Your task to perform on an android device: Search for the best custom wallets on Etsy. Image 0: 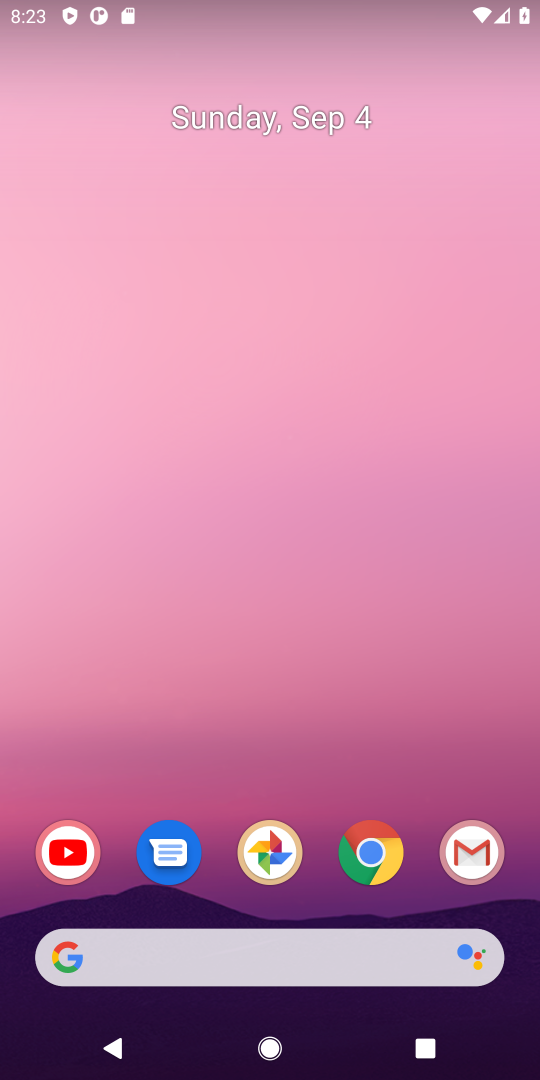
Step 0: drag from (413, 755) to (183, 36)
Your task to perform on an android device: Search for the best custom wallets on Etsy. Image 1: 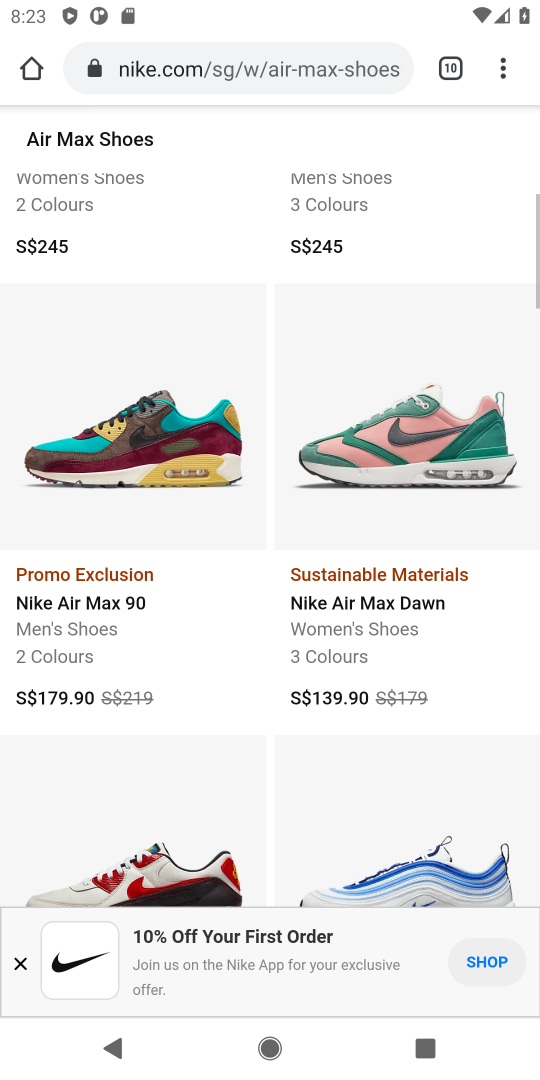
Step 1: press back button
Your task to perform on an android device: Search for the best custom wallets on Etsy. Image 2: 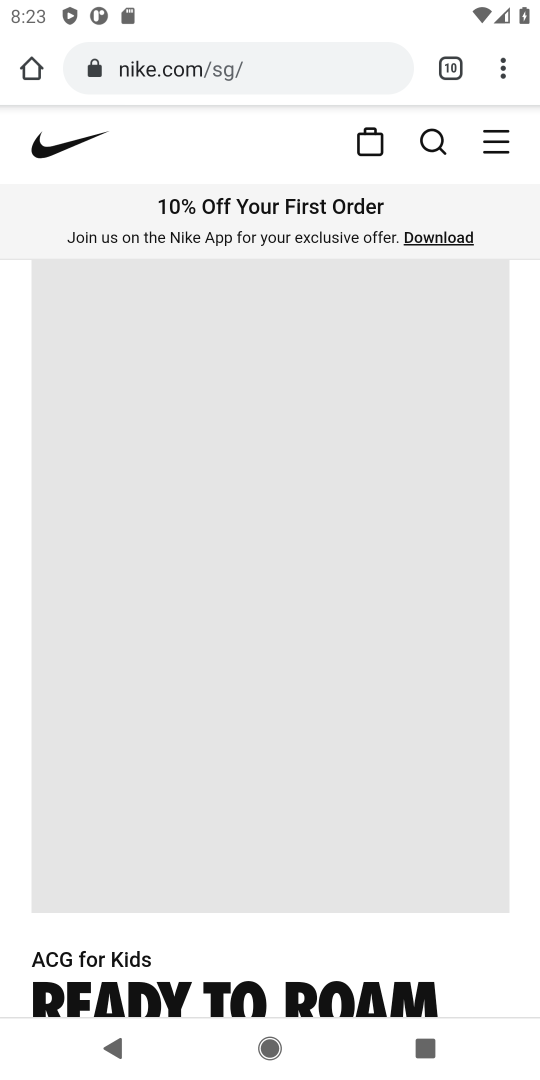
Step 2: press back button
Your task to perform on an android device: Search for the best custom wallets on Etsy. Image 3: 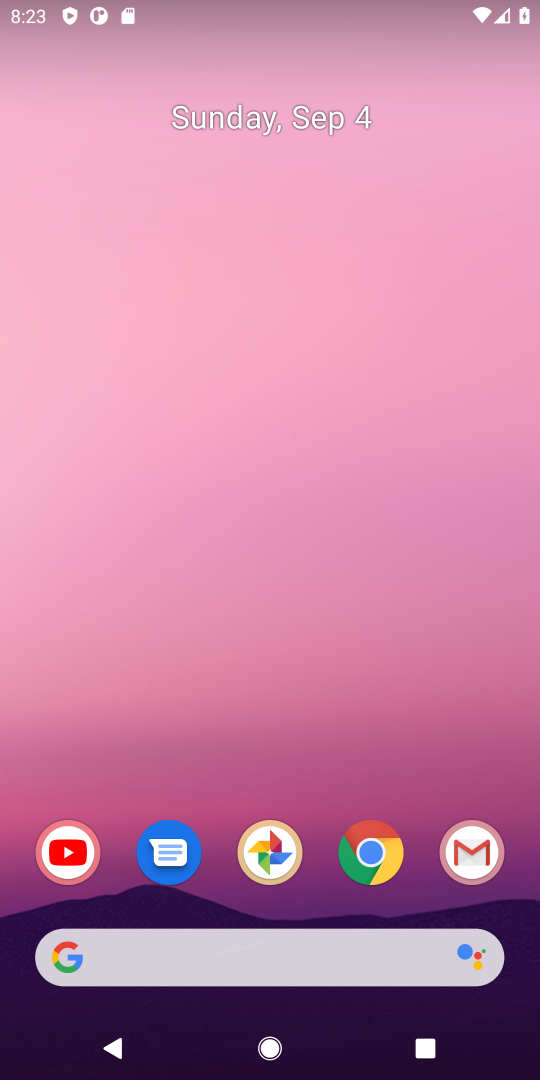
Step 3: drag from (374, 419) to (264, 112)
Your task to perform on an android device: Search for the best custom wallets on Etsy. Image 4: 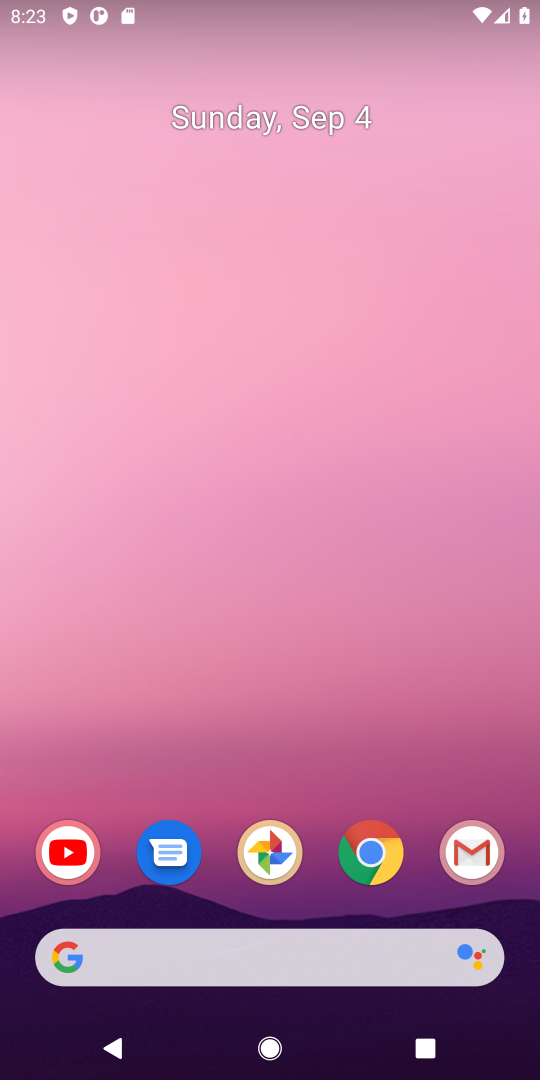
Step 4: drag from (283, 100) to (257, 21)
Your task to perform on an android device: Search for the best custom wallets on Etsy. Image 5: 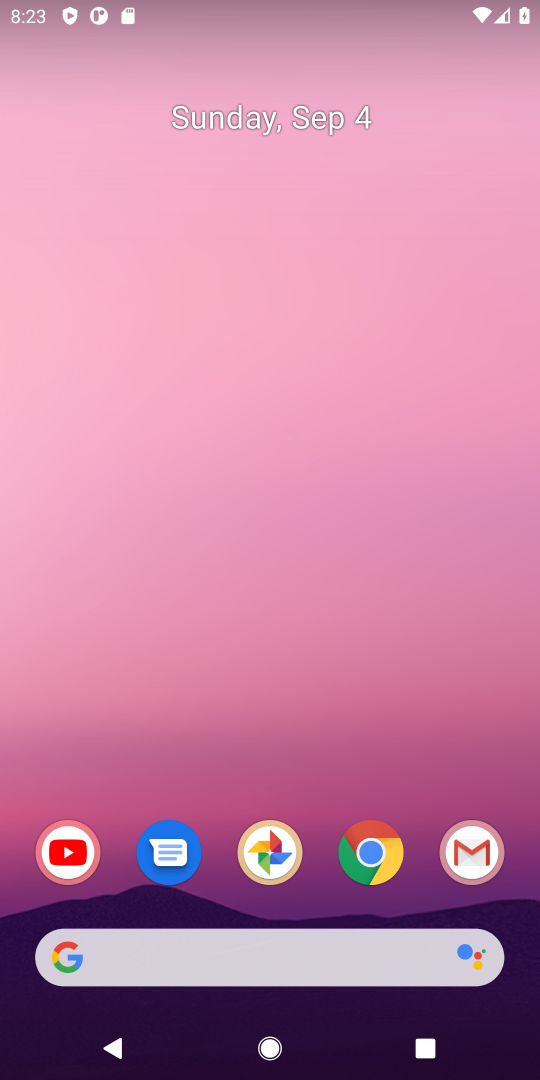
Step 5: drag from (424, 785) to (240, 183)
Your task to perform on an android device: Search for the best custom wallets on Etsy. Image 6: 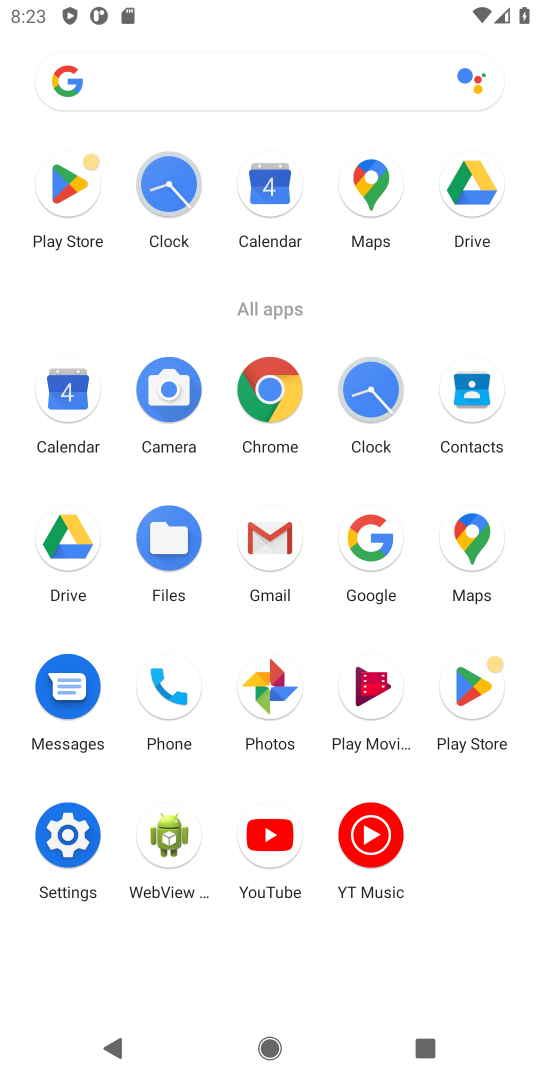
Step 6: click (372, 542)
Your task to perform on an android device: Search for the best custom wallets on Etsy. Image 7: 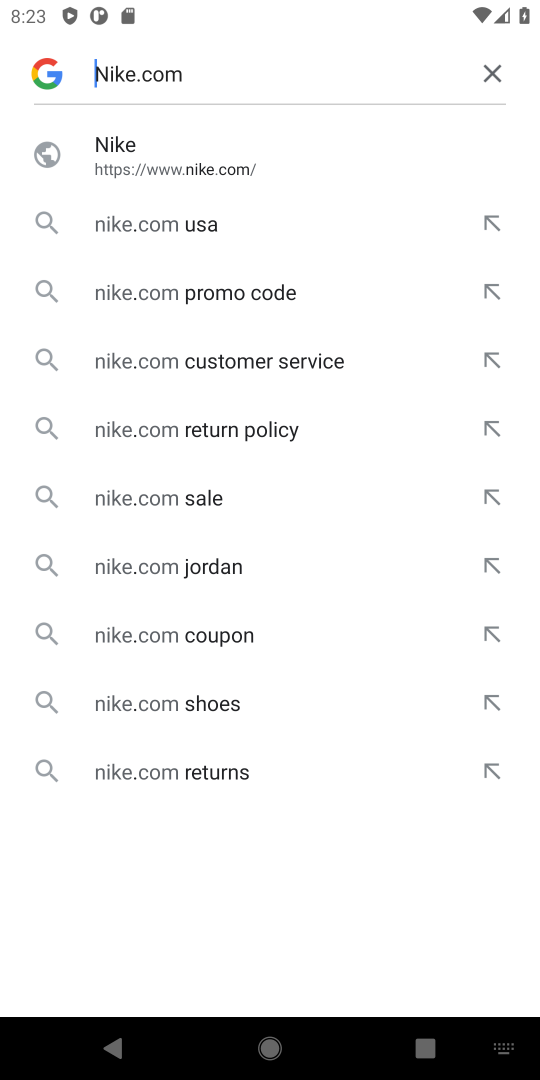
Step 7: click (494, 67)
Your task to perform on an android device: Search for the best custom wallets on Etsy. Image 8: 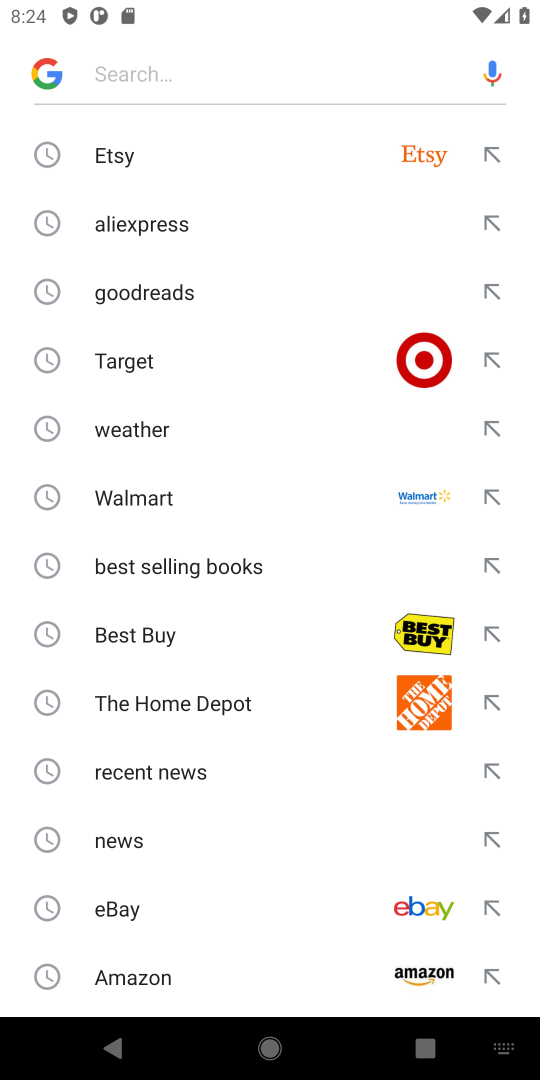
Step 8: click (204, 170)
Your task to perform on an android device: Search for the best custom wallets on Etsy. Image 9: 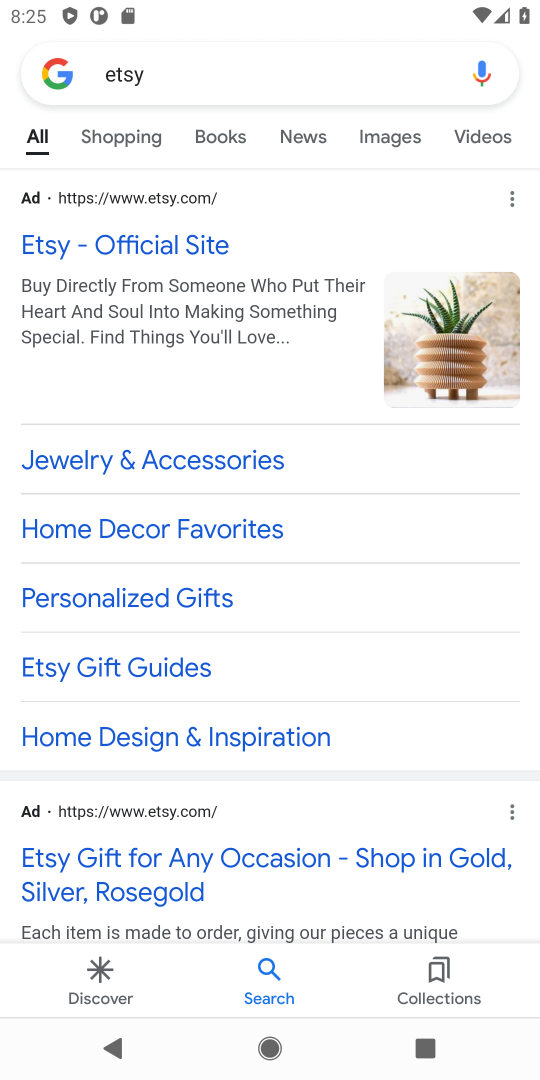
Step 9: click (179, 246)
Your task to perform on an android device: Search for the best custom wallets on Etsy. Image 10: 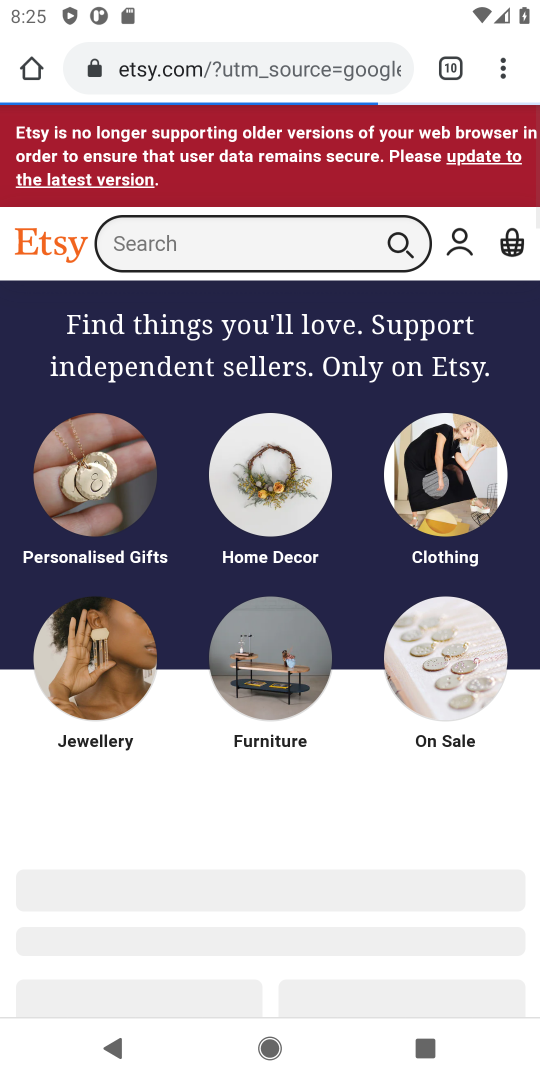
Step 10: click (200, 246)
Your task to perform on an android device: Search for the best custom wallets on Etsy. Image 11: 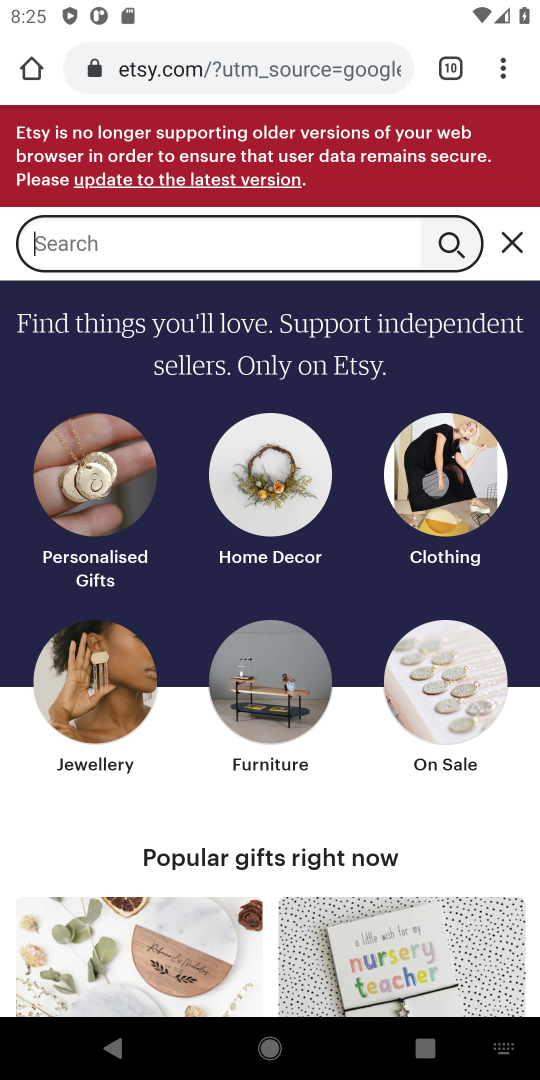
Step 11: type "best custom wallets"
Your task to perform on an android device: Search for the best custom wallets on Etsy. Image 12: 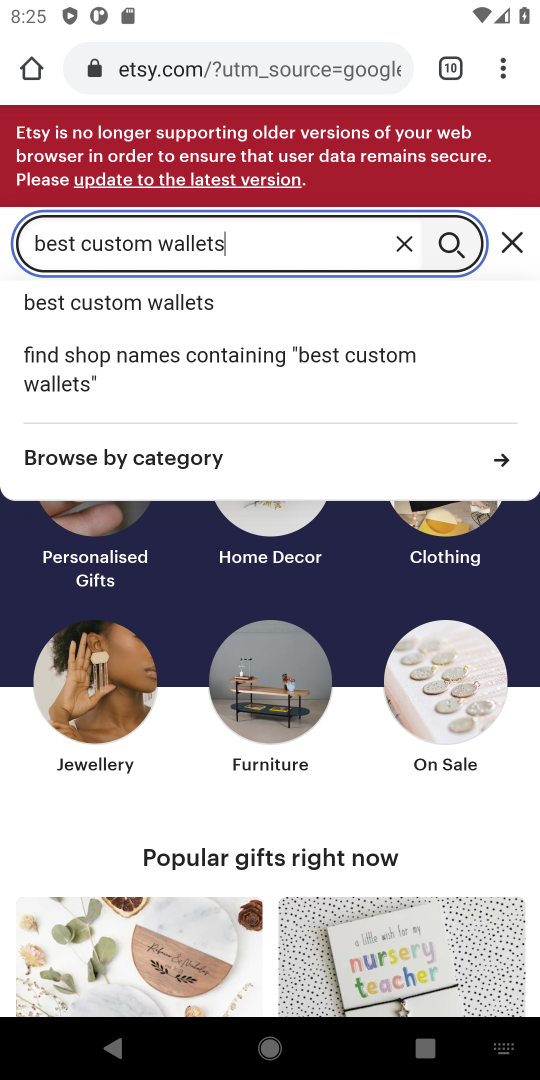
Step 12: click (443, 241)
Your task to perform on an android device: Search for the best custom wallets on Etsy. Image 13: 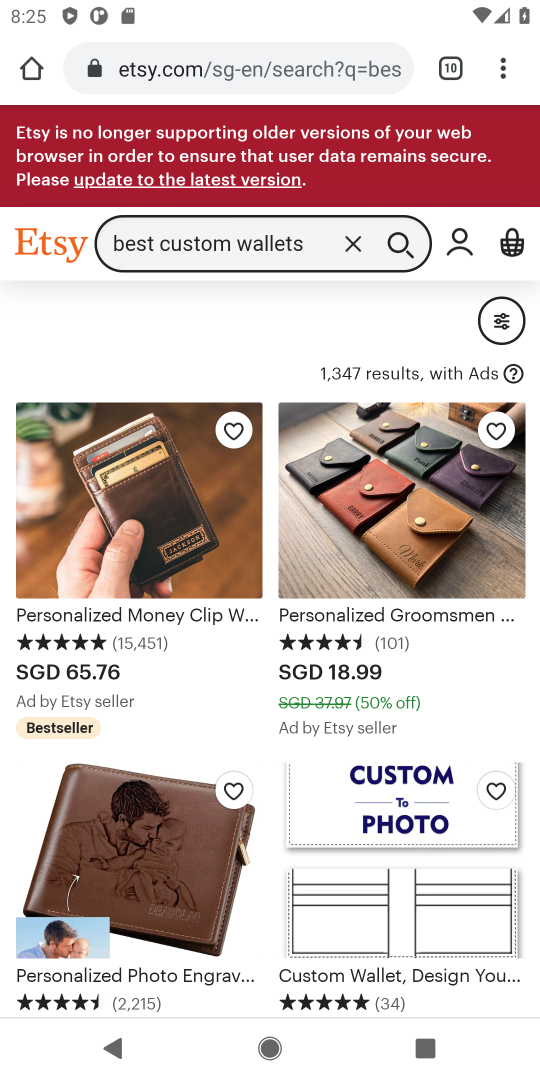
Step 13: task complete